Your task to perform on an android device: Open the stopwatch Image 0: 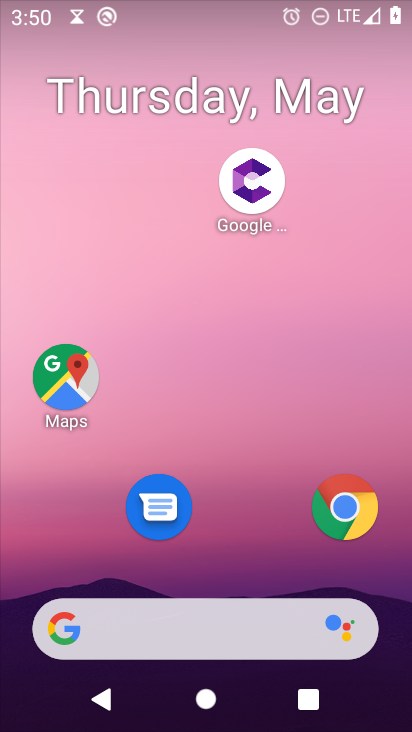
Step 0: press home button
Your task to perform on an android device: Open the stopwatch Image 1: 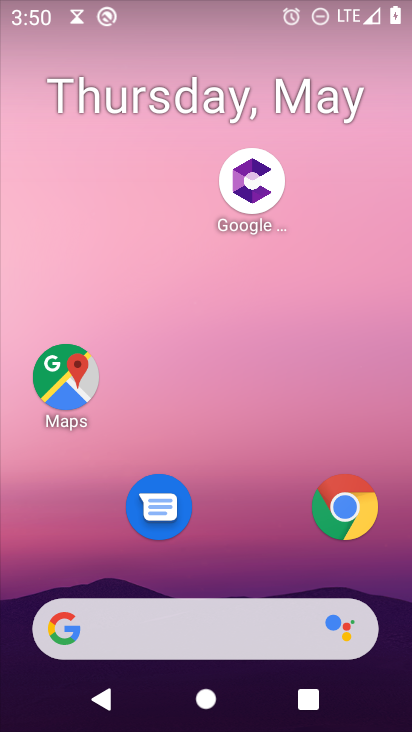
Step 1: drag from (200, 578) to (98, 146)
Your task to perform on an android device: Open the stopwatch Image 2: 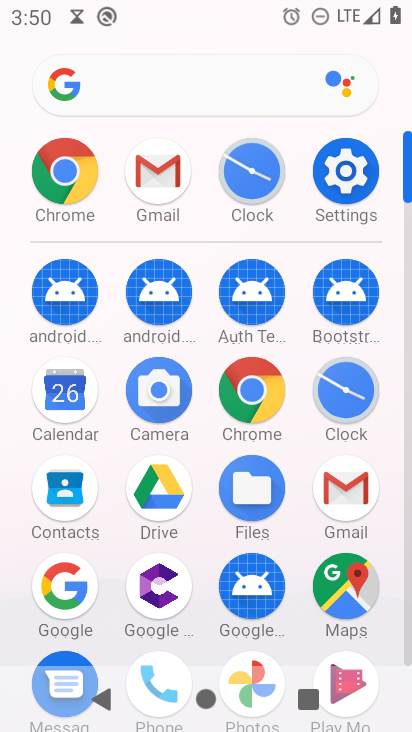
Step 2: click (361, 383)
Your task to perform on an android device: Open the stopwatch Image 3: 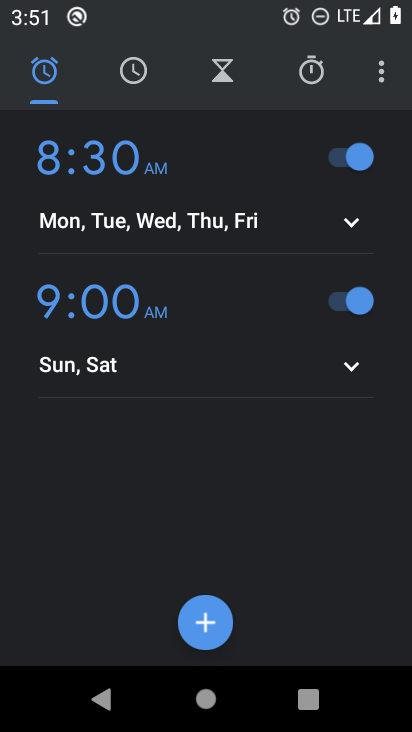
Step 3: click (305, 68)
Your task to perform on an android device: Open the stopwatch Image 4: 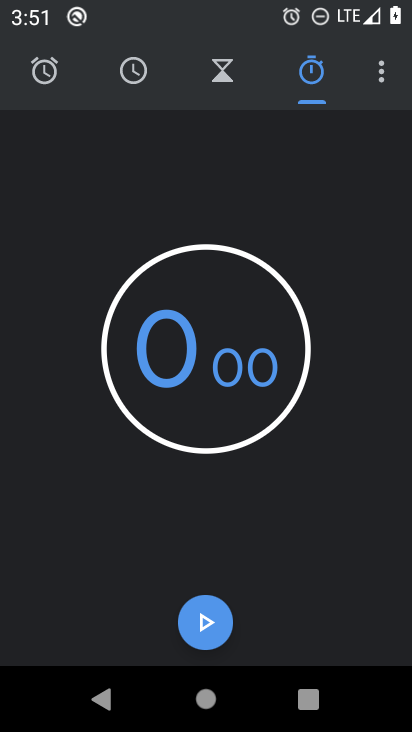
Step 4: task complete